Your task to perform on an android device: Search for "apple airpods" on walmart.com, select the first entry, and add it to the cart. Image 0: 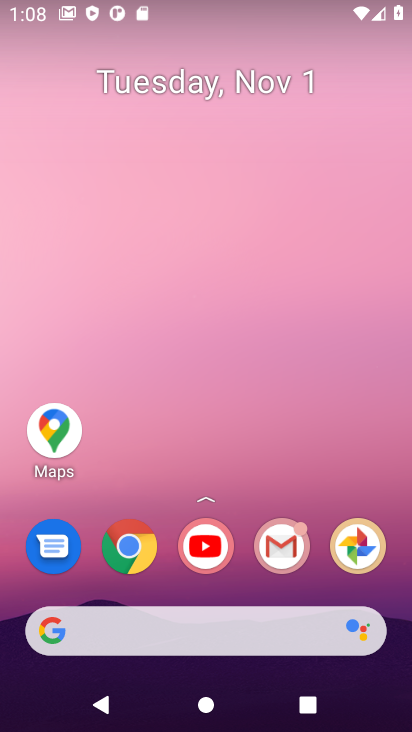
Step 0: click (129, 550)
Your task to perform on an android device: Search for "apple airpods" on walmart.com, select the first entry, and add it to the cart. Image 1: 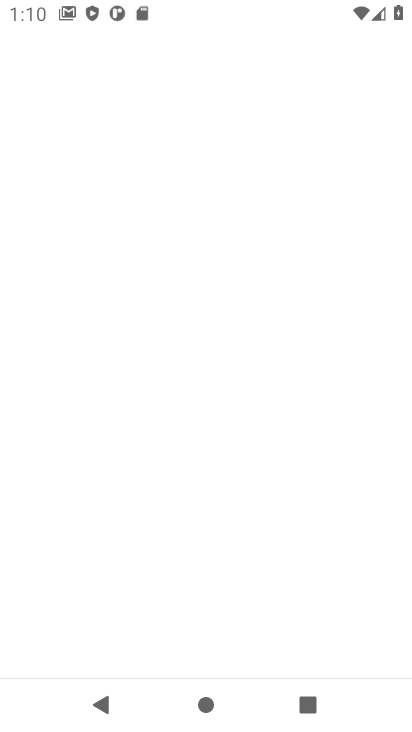
Step 1: task complete